Your task to perform on an android device: visit the assistant section in the google photos Image 0: 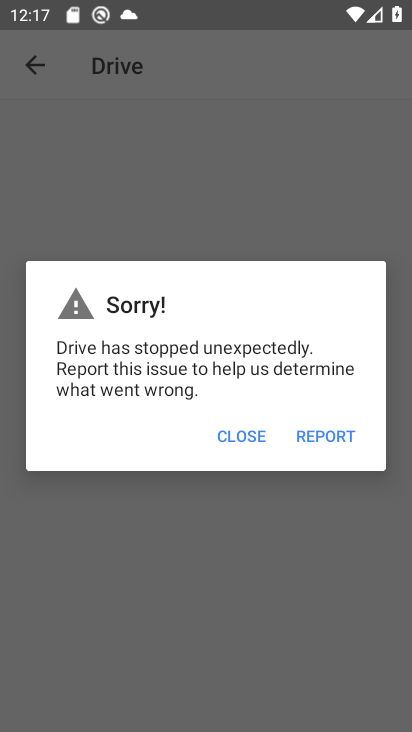
Step 0: press home button
Your task to perform on an android device: visit the assistant section in the google photos Image 1: 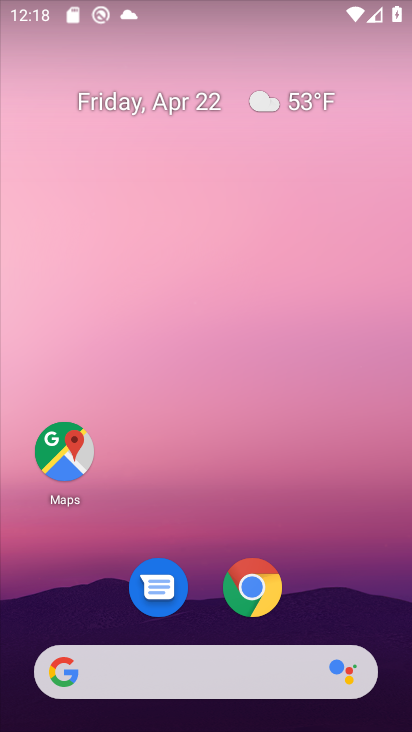
Step 1: drag from (330, 624) to (296, 138)
Your task to perform on an android device: visit the assistant section in the google photos Image 2: 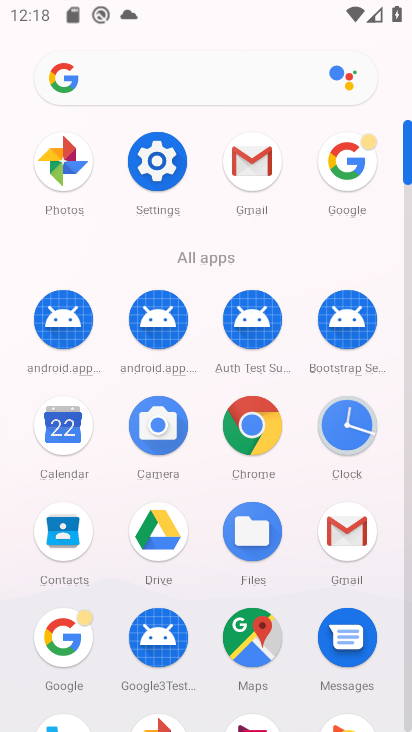
Step 2: click (57, 178)
Your task to perform on an android device: visit the assistant section in the google photos Image 3: 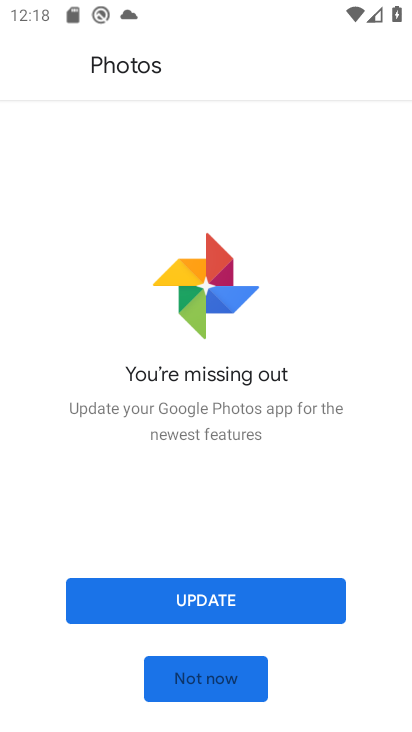
Step 3: click (273, 606)
Your task to perform on an android device: visit the assistant section in the google photos Image 4: 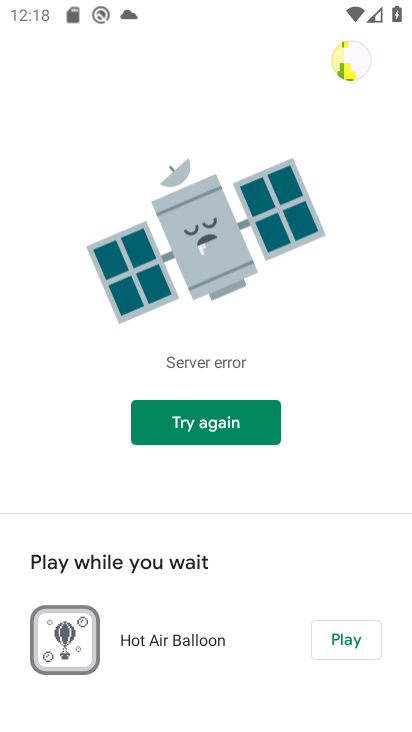
Step 4: task complete